Your task to perform on an android device: Open calendar and show me the first week of next month Image 0: 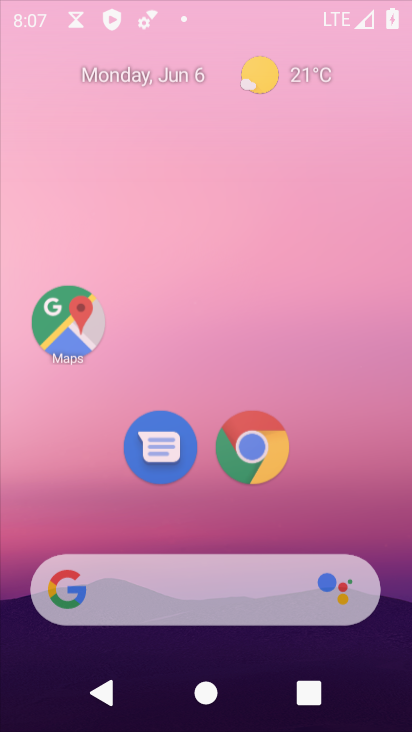
Step 0: click (208, 123)
Your task to perform on an android device: Open calendar and show me the first week of next month Image 1: 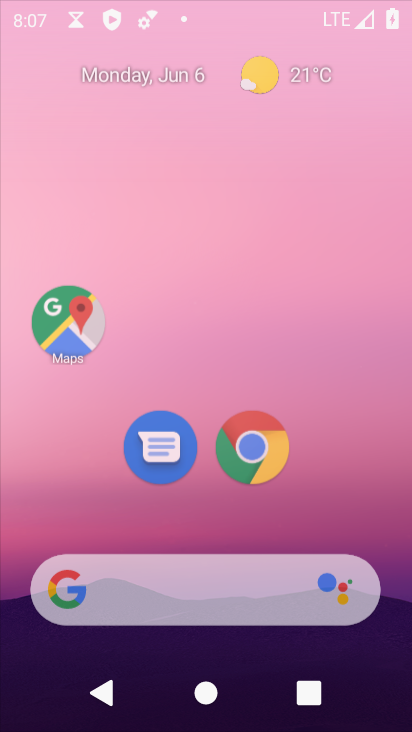
Step 1: press home button
Your task to perform on an android device: Open calendar and show me the first week of next month Image 2: 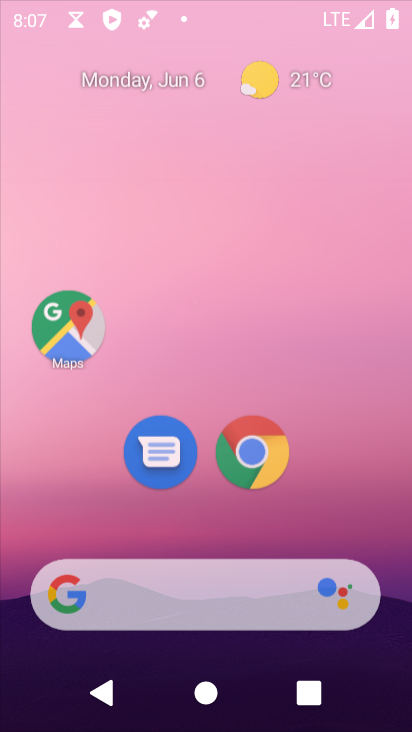
Step 2: press home button
Your task to perform on an android device: Open calendar and show me the first week of next month Image 3: 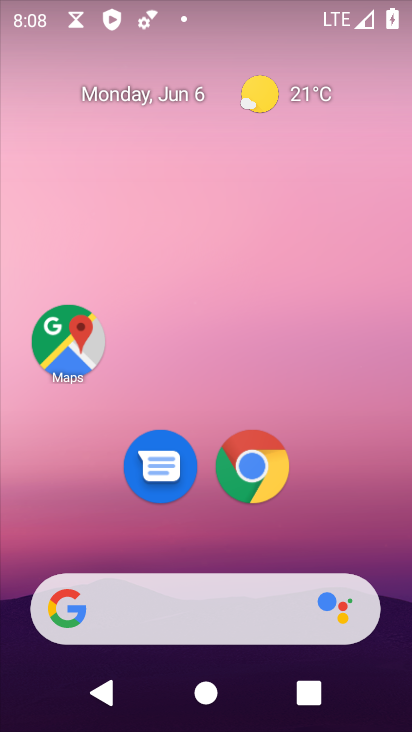
Step 3: drag from (184, 533) to (192, 391)
Your task to perform on an android device: Open calendar and show me the first week of next month Image 4: 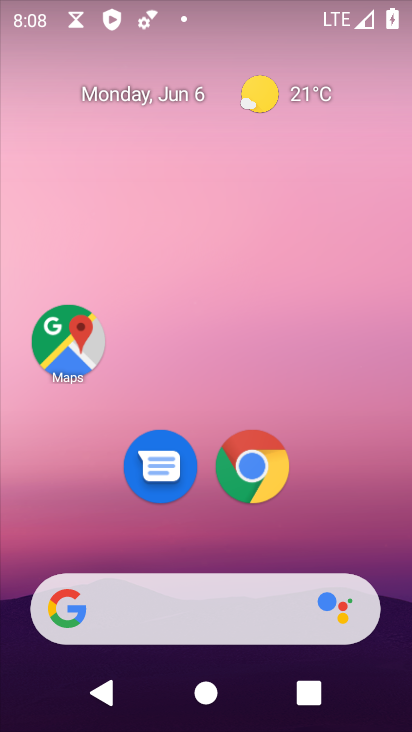
Step 4: click (219, 350)
Your task to perform on an android device: Open calendar and show me the first week of next month Image 5: 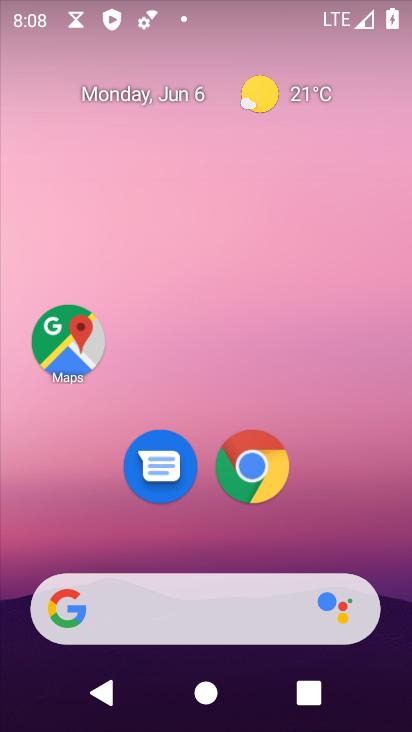
Step 5: drag from (233, 435) to (147, 0)
Your task to perform on an android device: Open calendar and show me the first week of next month Image 6: 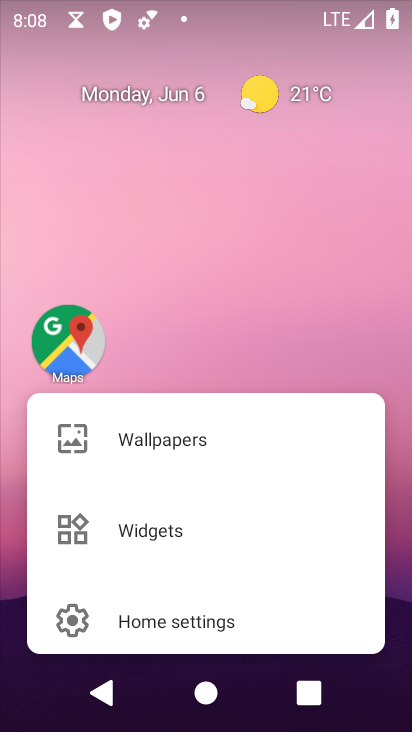
Step 6: click (293, 276)
Your task to perform on an android device: Open calendar and show me the first week of next month Image 7: 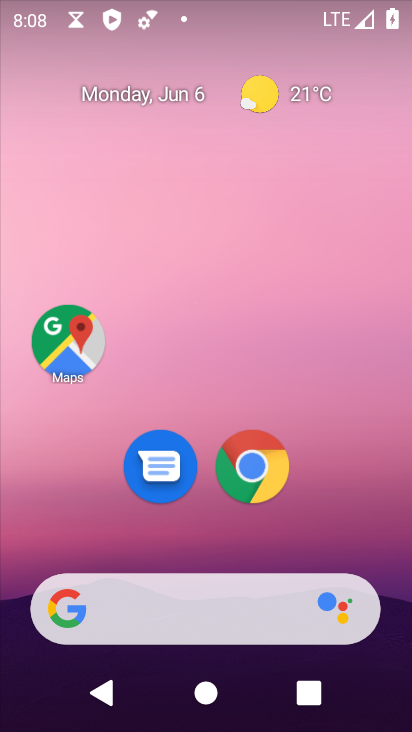
Step 7: drag from (214, 521) to (296, 52)
Your task to perform on an android device: Open calendar and show me the first week of next month Image 8: 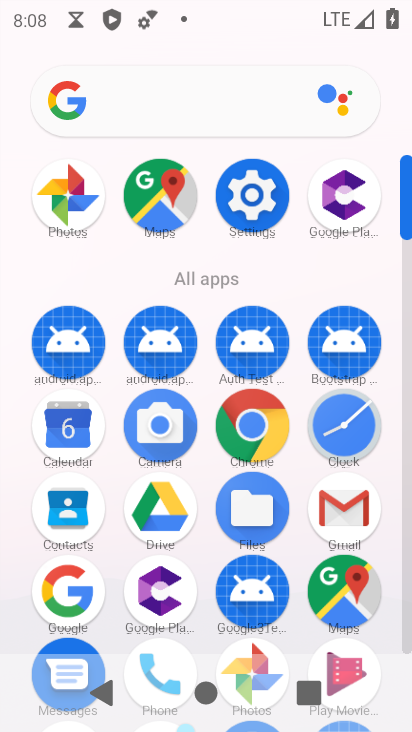
Step 8: click (66, 425)
Your task to perform on an android device: Open calendar and show me the first week of next month Image 9: 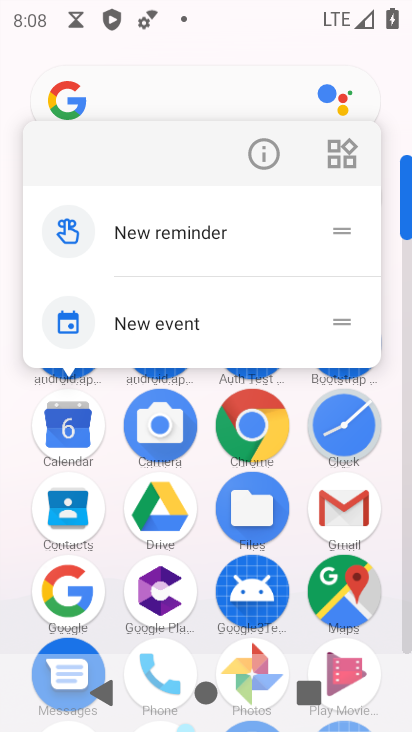
Step 9: click (266, 161)
Your task to perform on an android device: Open calendar and show me the first week of next month Image 10: 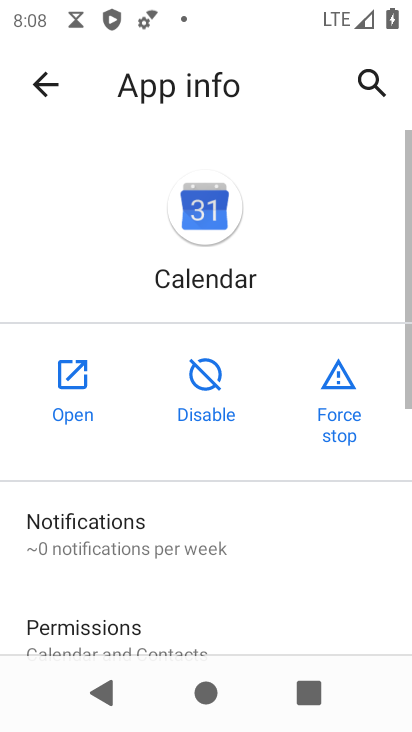
Step 10: click (76, 401)
Your task to perform on an android device: Open calendar and show me the first week of next month Image 11: 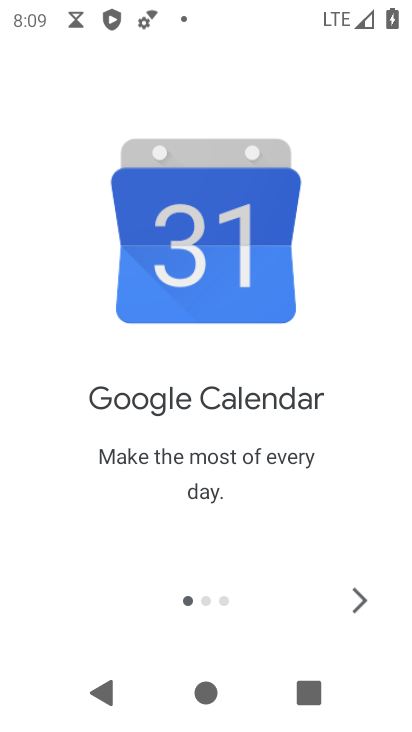
Step 11: click (349, 585)
Your task to perform on an android device: Open calendar and show me the first week of next month Image 12: 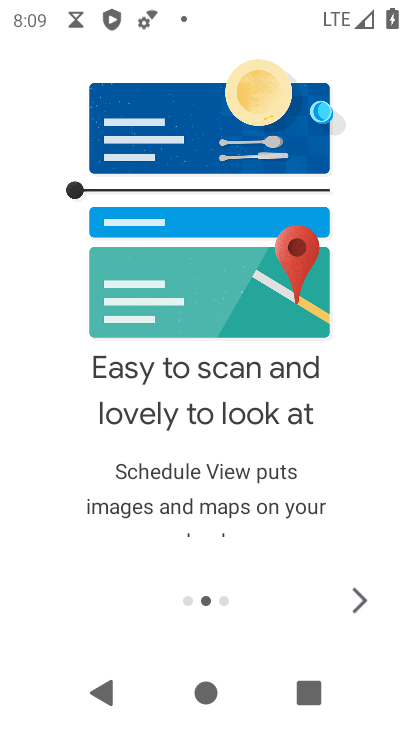
Step 12: click (349, 585)
Your task to perform on an android device: Open calendar and show me the first week of next month Image 13: 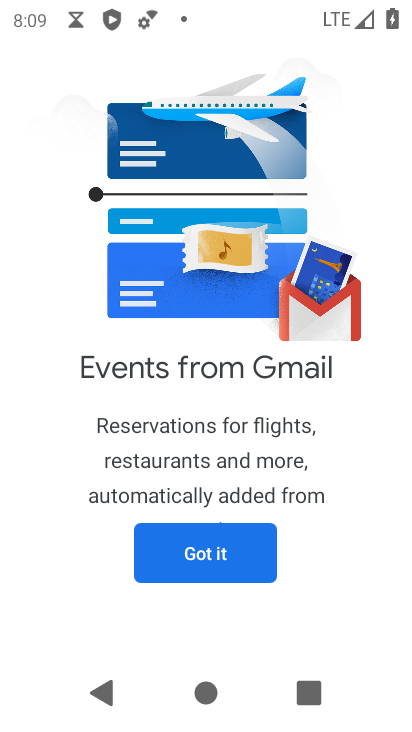
Step 13: click (351, 578)
Your task to perform on an android device: Open calendar and show me the first week of next month Image 14: 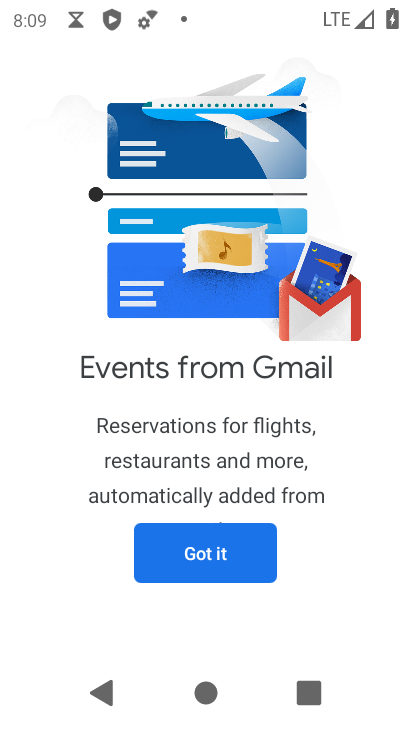
Step 14: click (208, 517)
Your task to perform on an android device: Open calendar and show me the first week of next month Image 15: 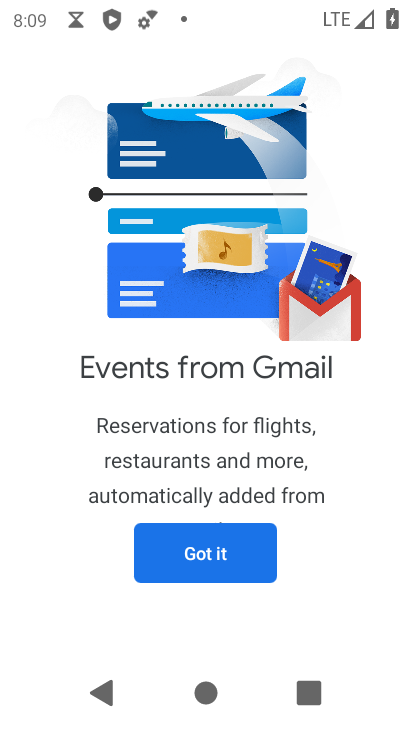
Step 15: click (218, 522)
Your task to perform on an android device: Open calendar and show me the first week of next month Image 16: 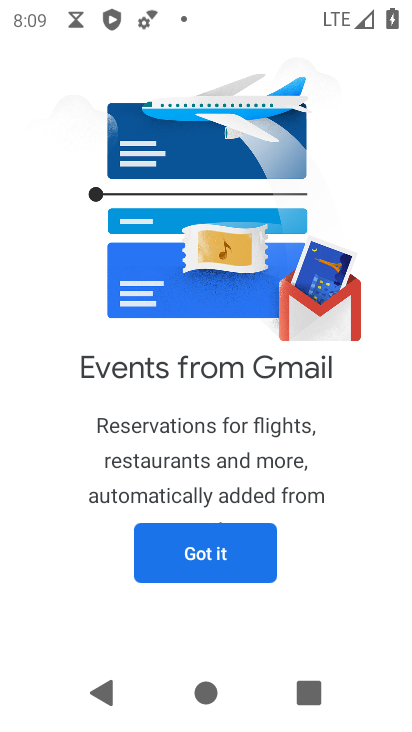
Step 16: drag from (216, 521) to (276, 70)
Your task to perform on an android device: Open calendar and show me the first week of next month Image 17: 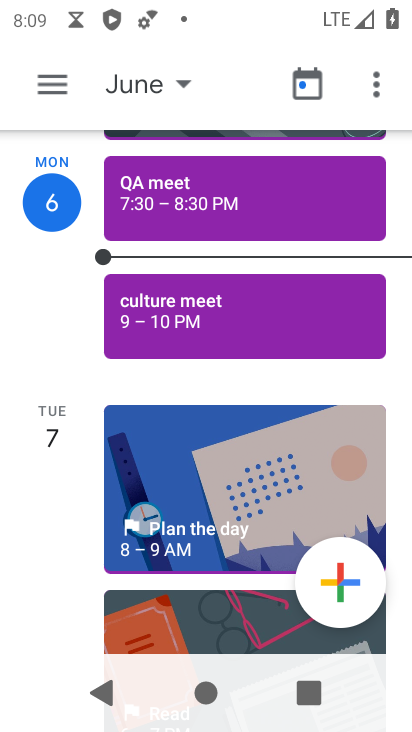
Step 17: click (143, 71)
Your task to perform on an android device: Open calendar and show me the first week of next month Image 18: 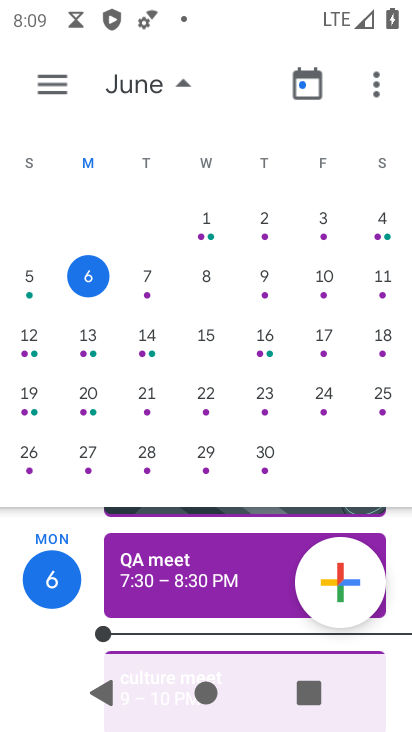
Step 18: drag from (363, 262) to (1, 283)
Your task to perform on an android device: Open calendar and show me the first week of next month Image 19: 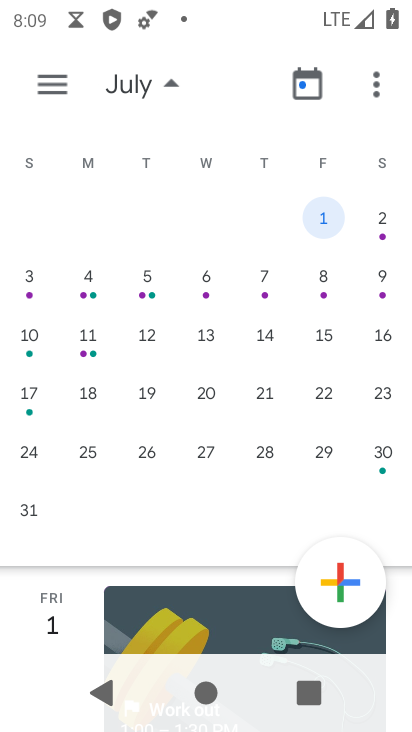
Step 19: click (379, 206)
Your task to perform on an android device: Open calendar and show me the first week of next month Image 20: 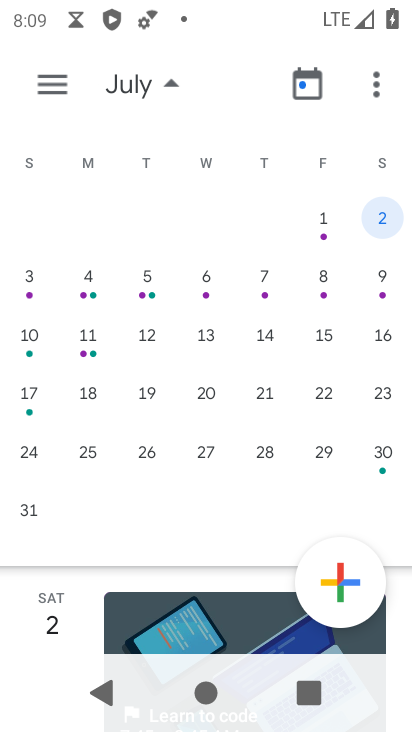
Step 20: task complete